Your task to perform on an android device: Is it going to rain today? Image 0: 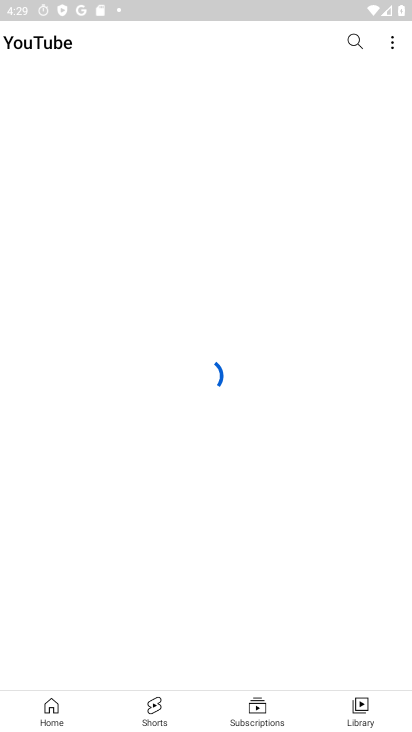
Step 0: press home button
Your task to perform on an android device: Is it going to rain today? Image 1: 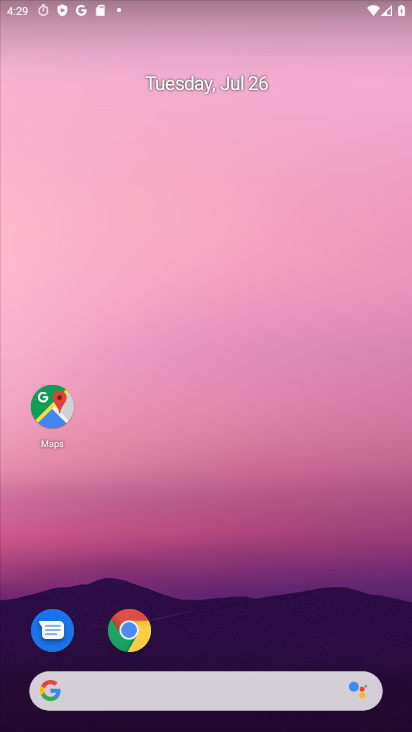
Step 1: drag from (314, 632) to (293, 40)
Your task to perform on an android device: Is it going to rain today? Image 2: 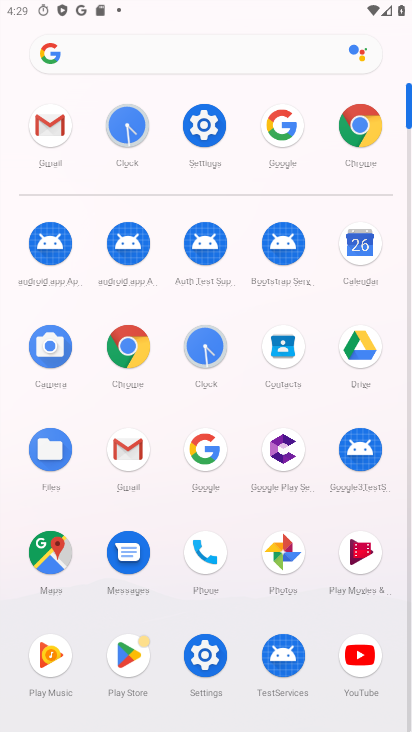
Step 2: click (357, 121)
Your task to perform on an android device: Is it going to rain today? Image 3: 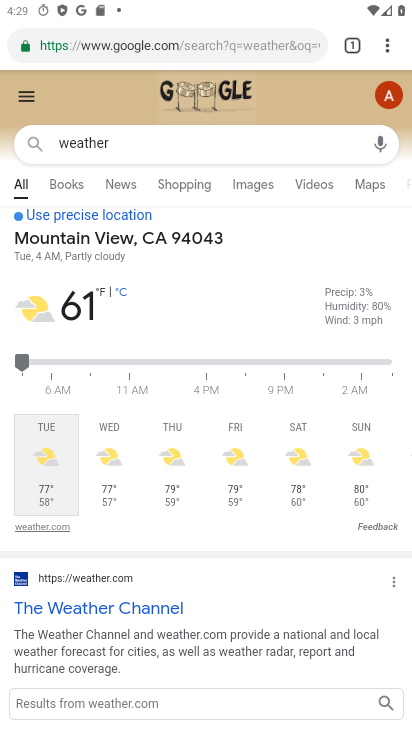
Step 3: click (230, 50)
Your task to perform on an android device: Is it going to rain today? Image 4: 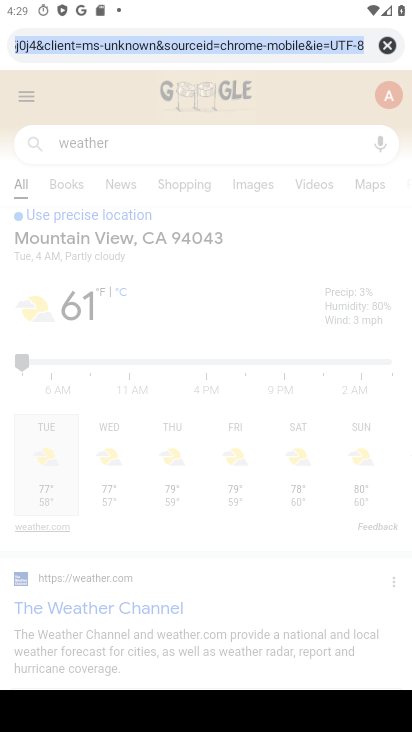
Step 4: type "weather"
Your task to perform on an android device: Is it going to rain today? Image 5: 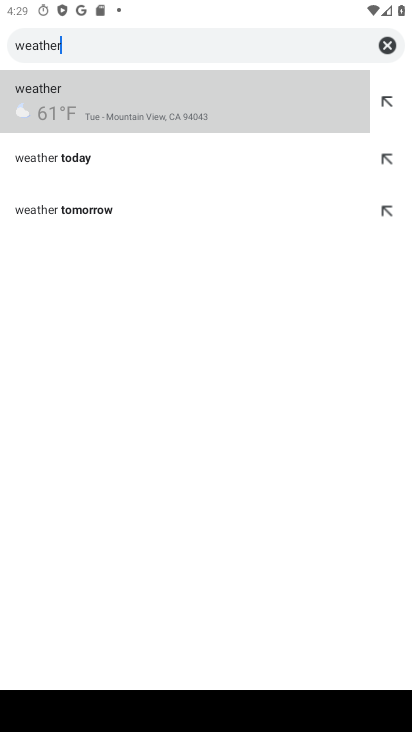
Step 5: click (173, 114)
Your task to perform on an android device: Is it going to rain today? Image 6: 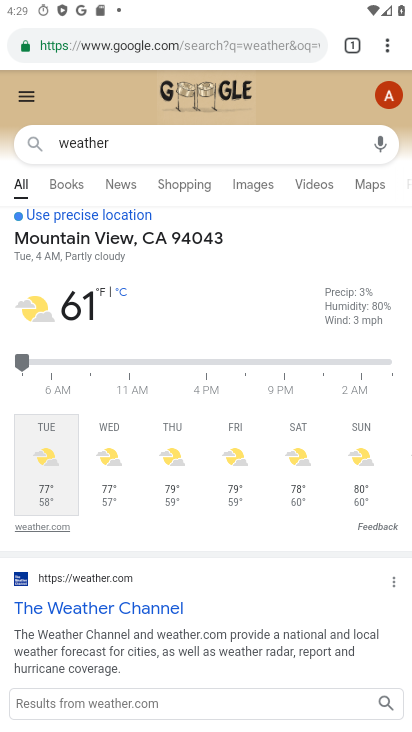
Step 6: task complete